Your task to perform on an android device: manage bookmarks in the chrome app Image 0: 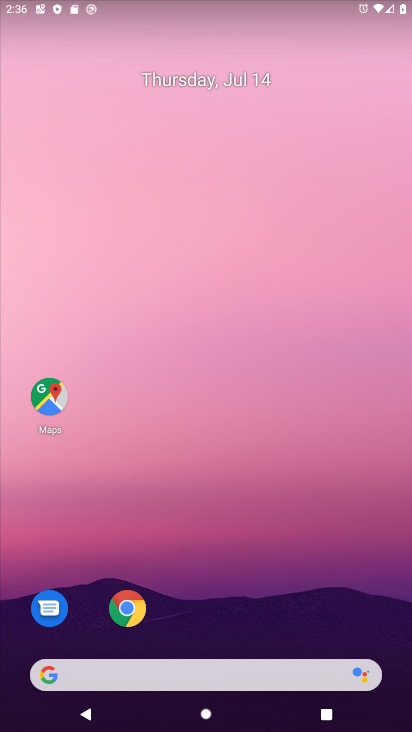
Step 0: drag from (242, 715) to (262, 211)
Your task to perform on an android device: manage bookmarks in the chrome app Image 1: 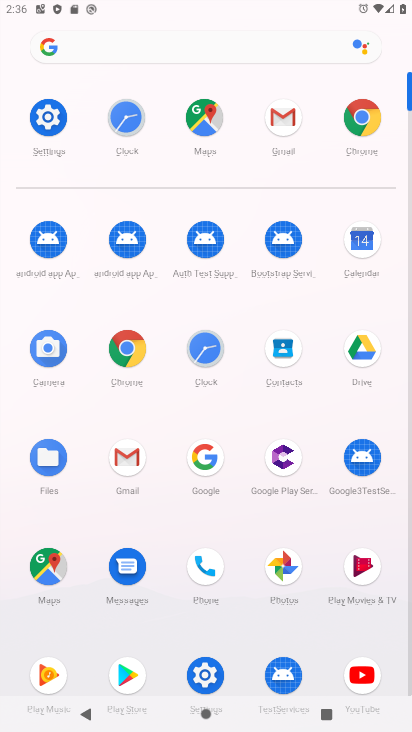
Step 1: click (118, 347)
Your task to perform on an android device: manage bookmarks in the chrome app Image 2: 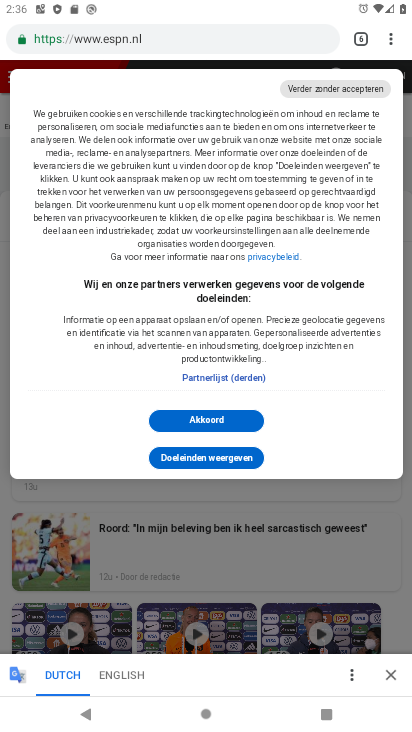
Step 2: click (392, 41)
Your task to perform on an android device: manage bookmarks in the chrome app Image 3: 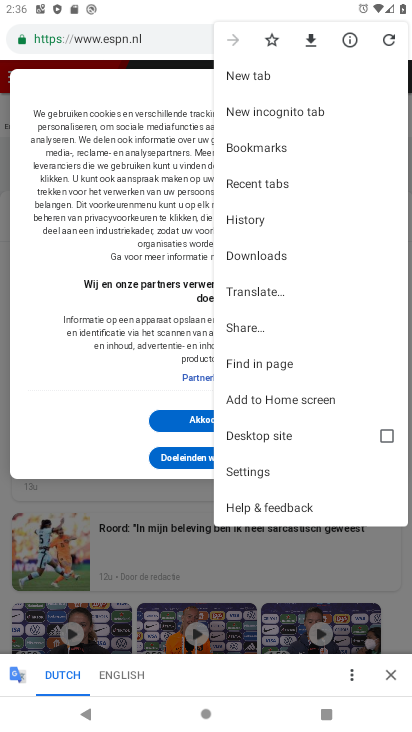
Step 3: click (264, 145)
Your task to perform on an android device: manage bookmarks in the chrome app Image 4: 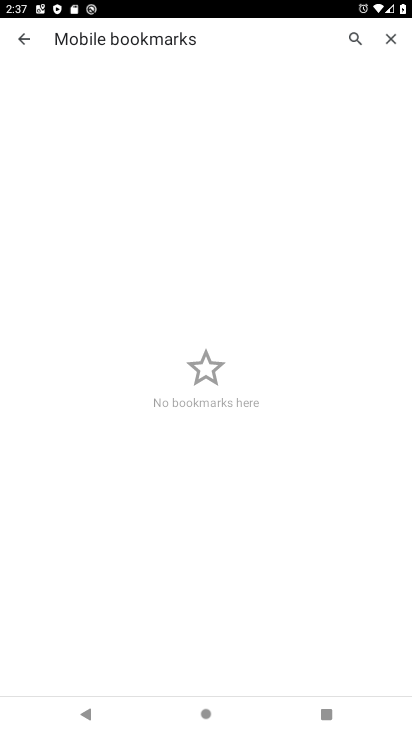
Step 4: task complete